Your task to perform on an android device: Go to accessibility settings Image 0: 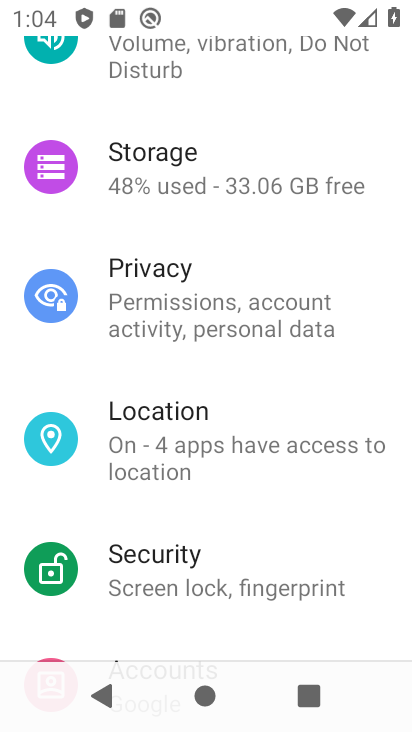
Step 0: drag from (114, 511) to (62, 156)
Your task to perform on an android device: Go to accessibility settings Image 1: 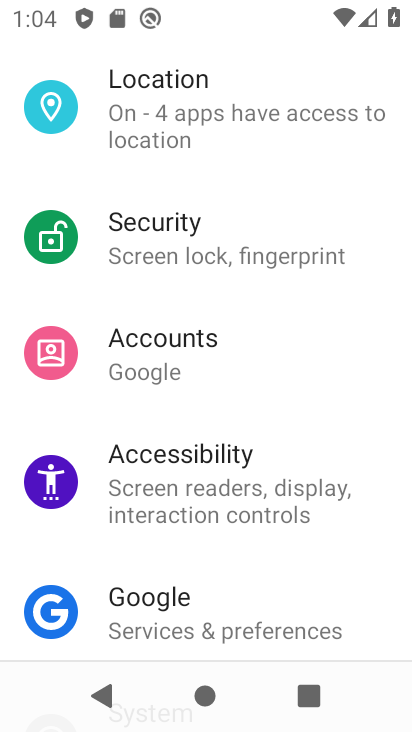
Step 1: click (155, 459)
Your task to perform on an android device: Go to accessibility settings Image 2: 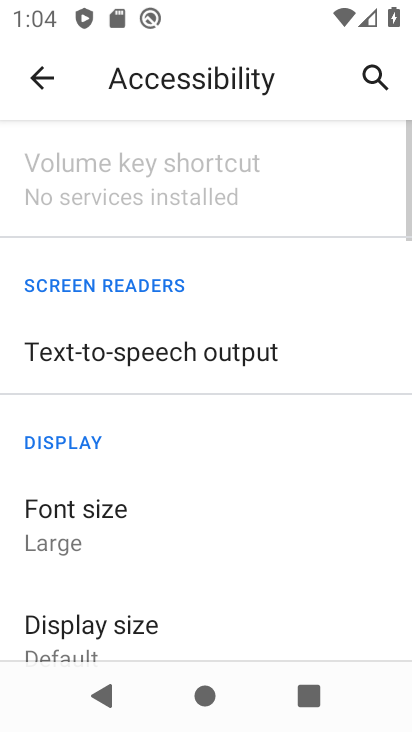
Step 2: task complete